Your task to perform on an android device: Open the phone app and click the voicemail tab. Image 0: 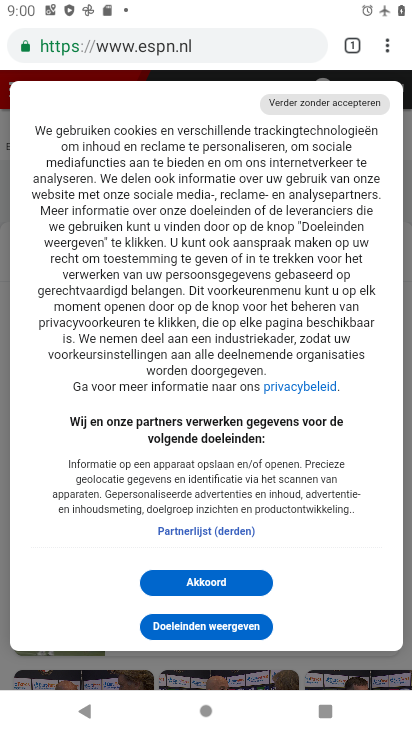
Step 0: press home button
Your task to perform on an android device: Open the phone app and click the voicemail tab. Image 1: 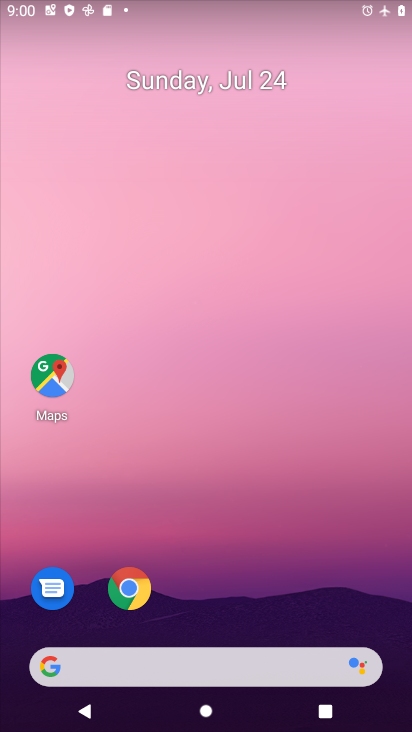
Step 1: drag from (269, 399) to (281, 16)
Your task to perform on an android device: Open the phone app and click the voicemail tab. Image 2: 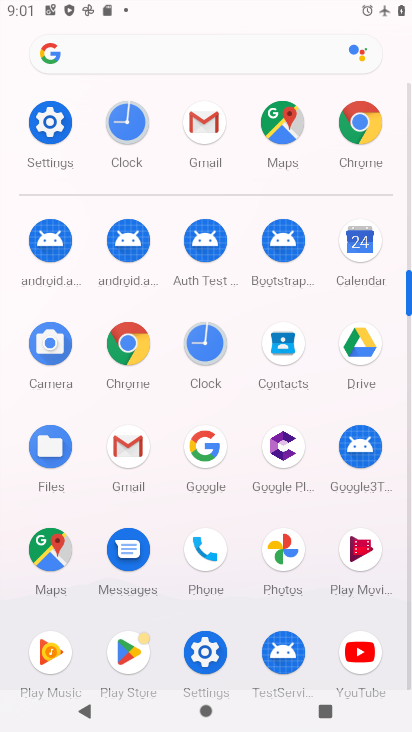
Step 2: click (187, 543)
Your task to perform on an android device: Open the phone app and click the voicemail tab. Image 3: 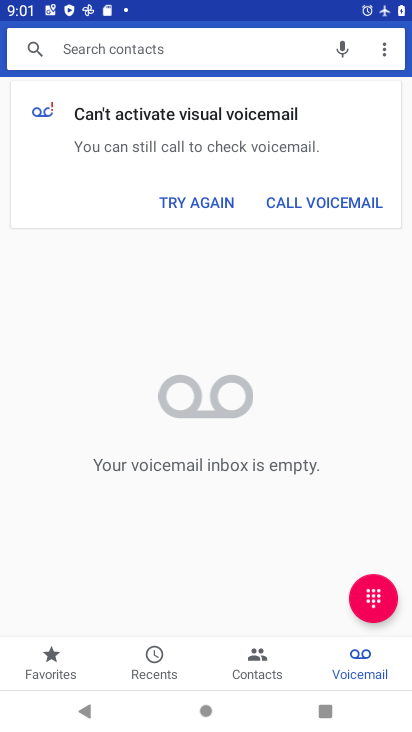
Step 3: click (349, 658)
Your task to perform on an android device: Open the phone app and click the voicemail tab. Image 4: 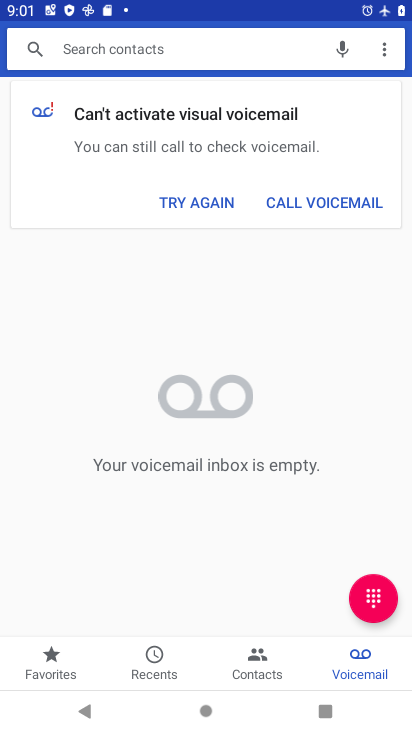
Step 4: task complete